Your task to perform on an android device: Open accessibility settings Image 0: 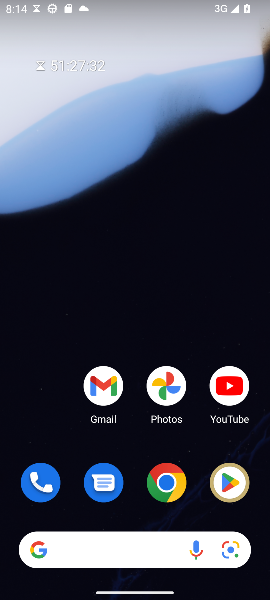
Step 0: drag from (125, 501) to (135, 0)
Your task to perform on an android device: Open accessibility settings Image 1: 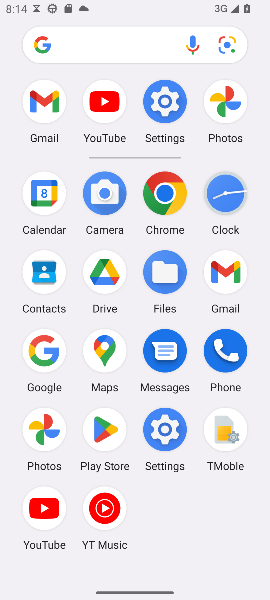
Step 1: click (163, 103)
Your task to perform on an android device: Open accessibility settings Image 2: 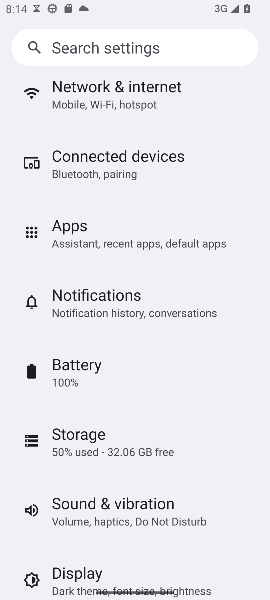
Step 2: drag from (161, 464) to (126, 128)
Your task to perform on an android device: Open accessibility settings Image 3: 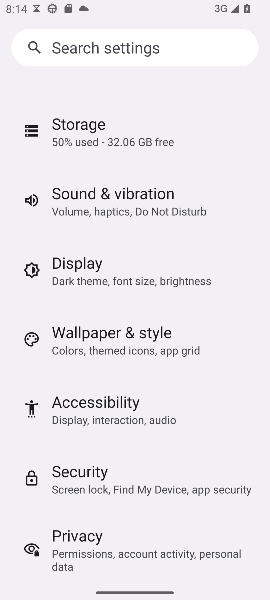
Step 3: click (109, 425)
Your task to perform on an android device: Open accessibility settings Image 4: 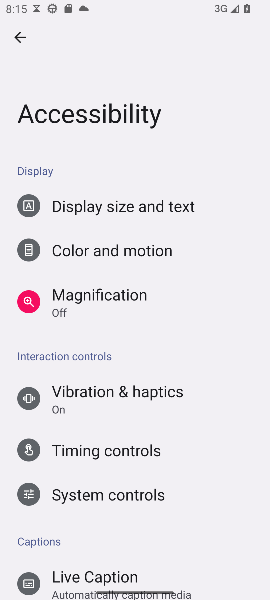
Step 4: task complete